Your task to perform on an android device: turn on location history Image 0: 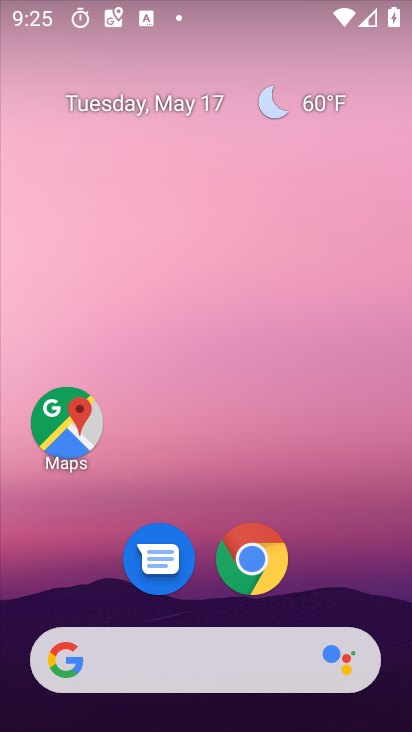
Step 0: drag from (180, 632) to (197, 109)
Your task to perform on an android device: turn on location history Image 1: 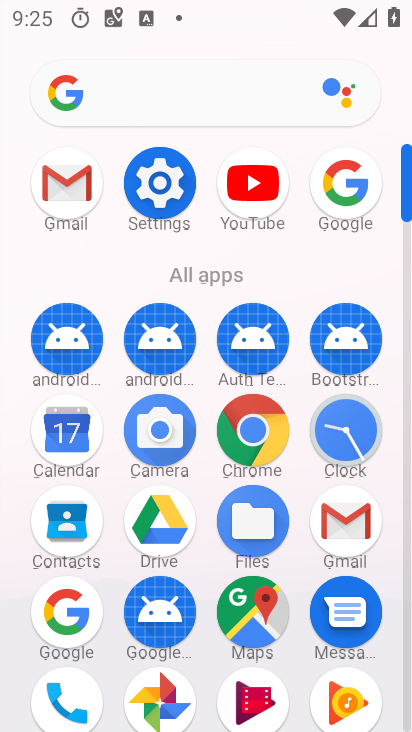
Step 1: click (153, 198)
Your task to perform on an android device: turn on location history Image 2: 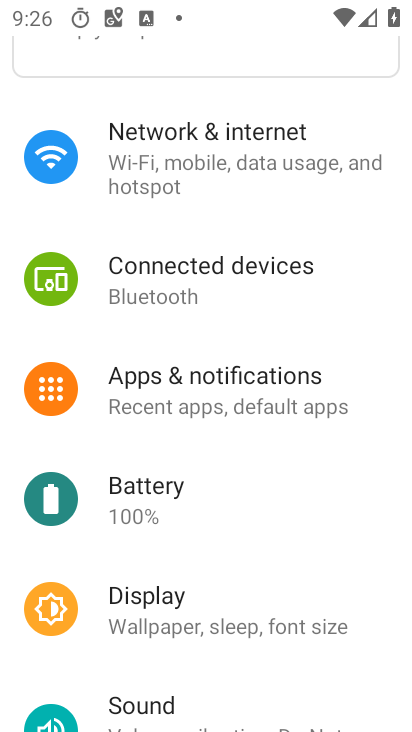
Step 2: drag from (150, 606) to (173, 445)
Your task to perform on an android device: turn on location history Image 3: 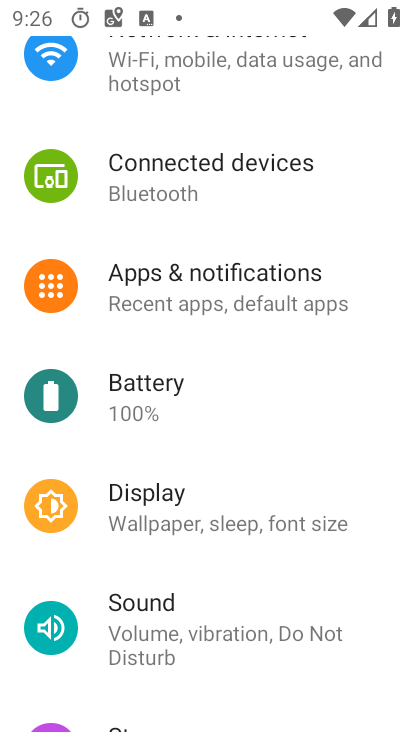
Step 3: drag from (134, 568) to (265, 183)
Your task to perform on an android device: turn on location history Image 4: 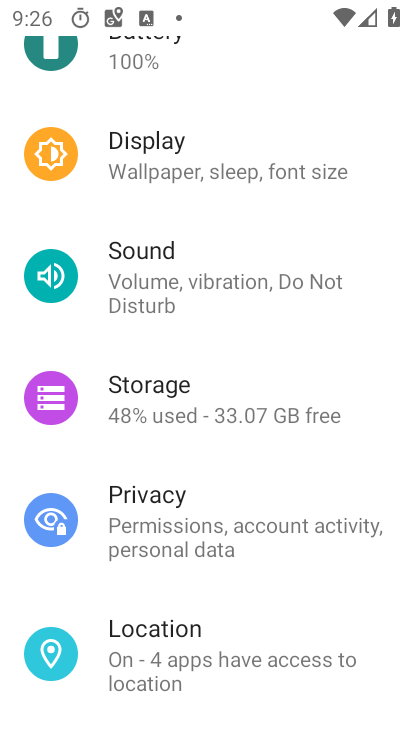
Step 4: click (136, 665)
Your task to perform on an android device: turn on location history Image 5: 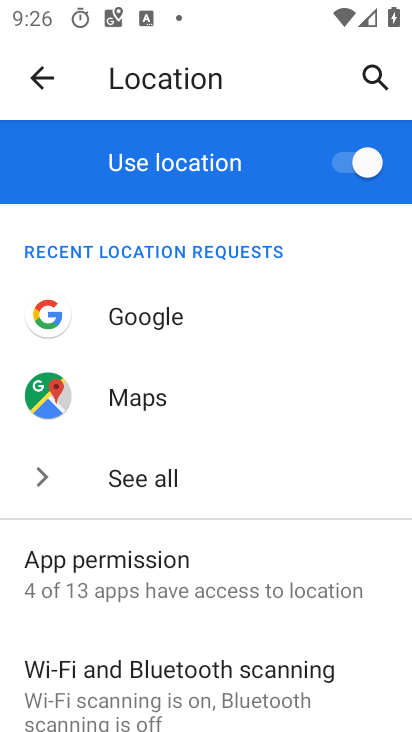
Step 5: drag from (134, 564) to (215, 275)
Your task to perform on an android device: turn on location history Image 6: 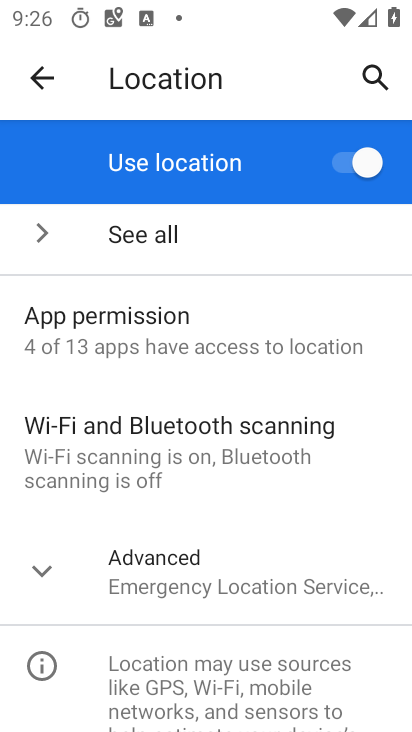
Step 6: click (204, 592)
Your task to perform on an android device: turn on location history Image 7: 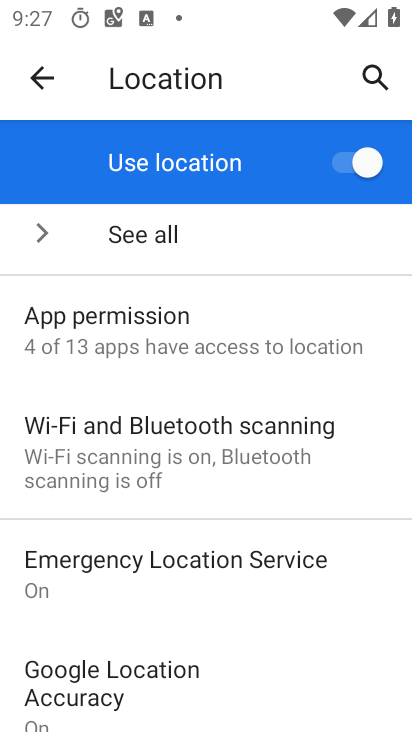
Step 7: drag from (183, 605) to (247, 257)
Your task to perform on an android device: turn on location history Image 8: 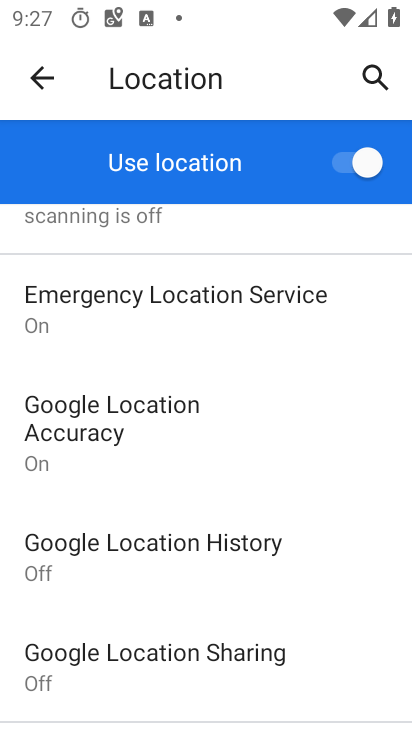
Step 8: click (174, 543)
Your task to perform on an android device: turn on location history Image 9: 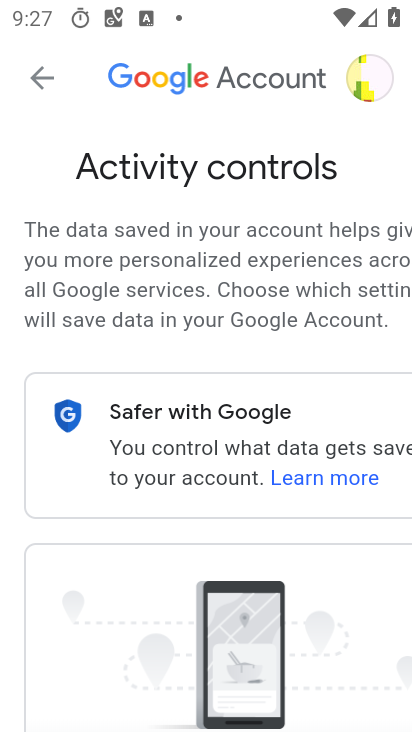
Step 9: drag from (184, 602) to (87, 255)
Your task to perform on an android device: turn on location history Image 10: 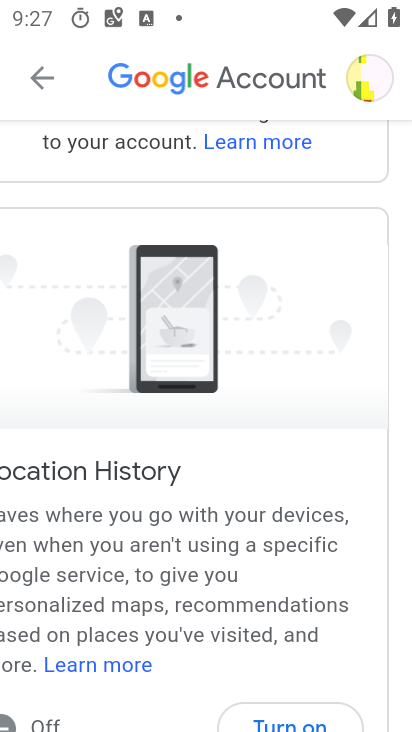
Step 10: drag from (216, 554) to (217, 274)
Your task to perform on an android device: turn on location history Image 11: 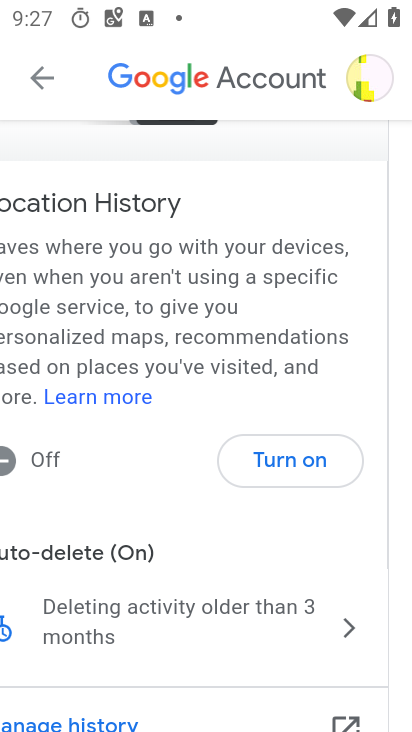
Step 11: click (319, 467)
Your task to perform on an android device: turn on location history Image 12: 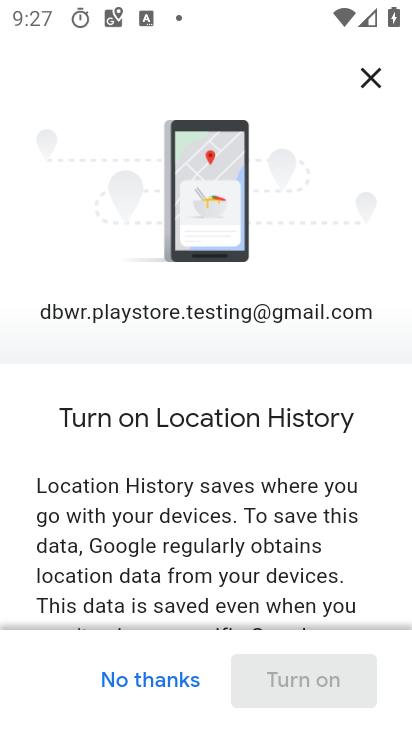
Step 12: drag from (272, 529) to (300, 135)
Your task to perform on an android device: turn on location history Image 13: 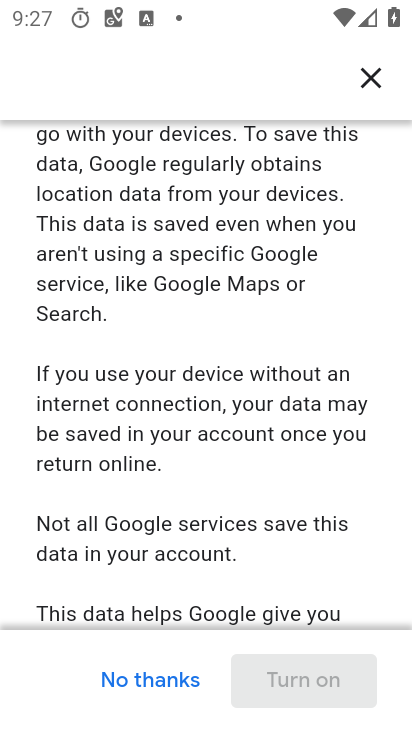
Step 13: drag from (245, 494) to (302, 70)
Your task to perform on an android device: turn on location history Image 14: 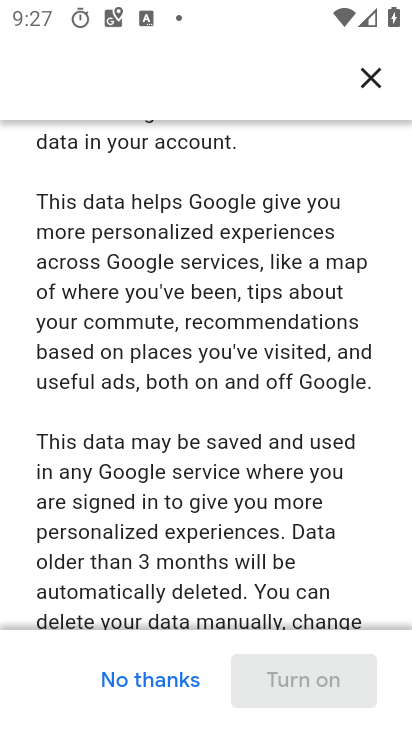
Step 14: drag from (250, 472) to (289, 5)
Your task to perform on an android device: turn on location history Image 15: 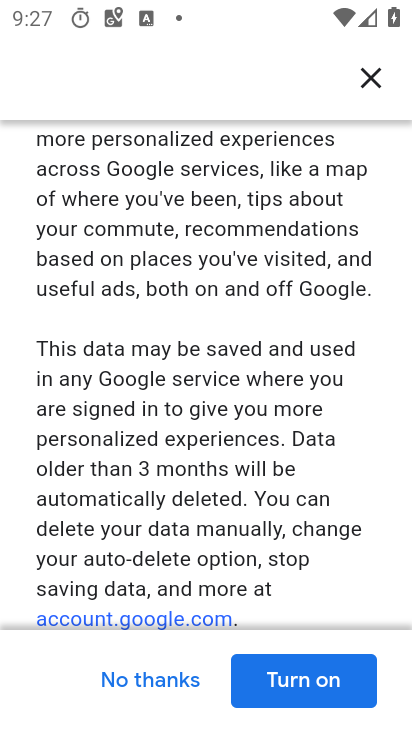
Step 15: click (304, 694)
Your task to perform on an android device: turn on location history Image 16: 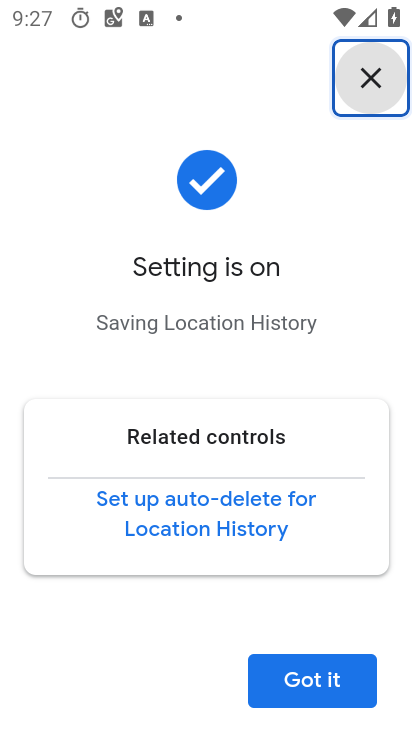
Step 16: click (306, 695)
Your task to perform on an android device: turn on location history Image 17: 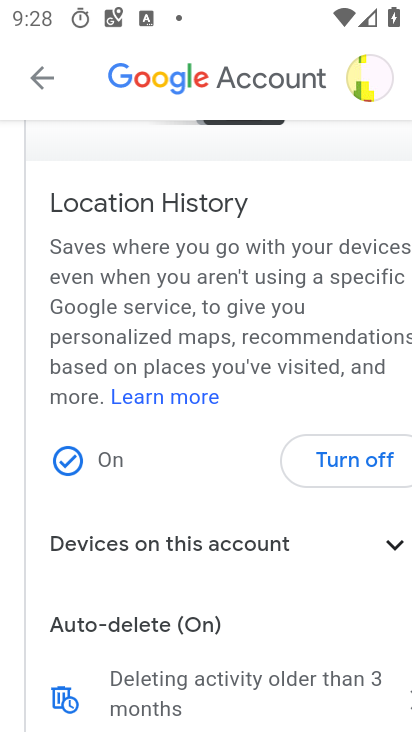
Step 17: task complete